Your task to perform on an android device: open wifi settings Image 0: 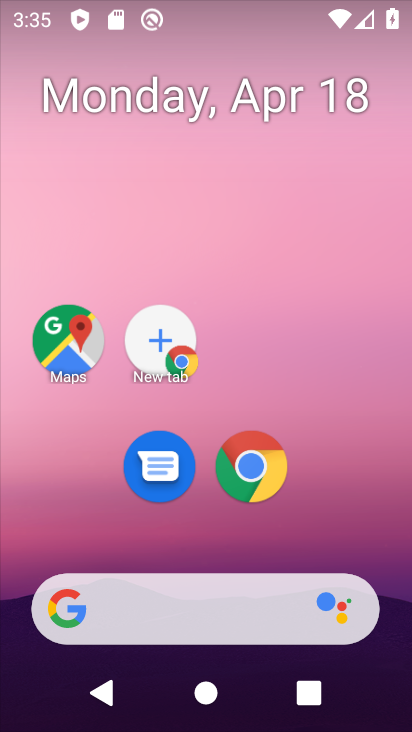
Step 0: drag from (317, 519) to (282, 6)
Your task to perform on an android device: open wifi settings Image 1: 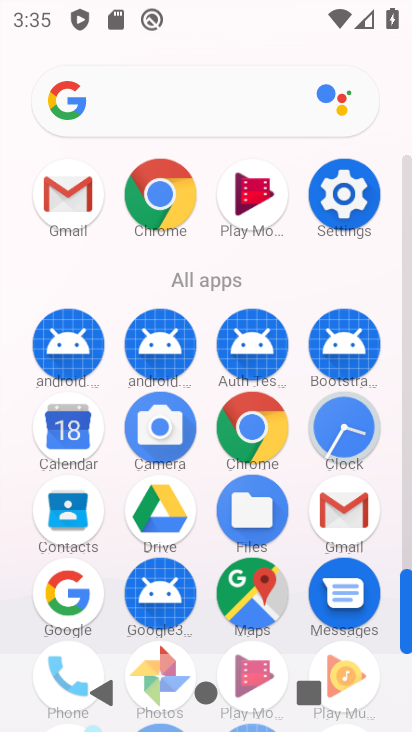
Step 1: click (347, 191)
Your task to perform on an android device: open wifi settings Image 2: 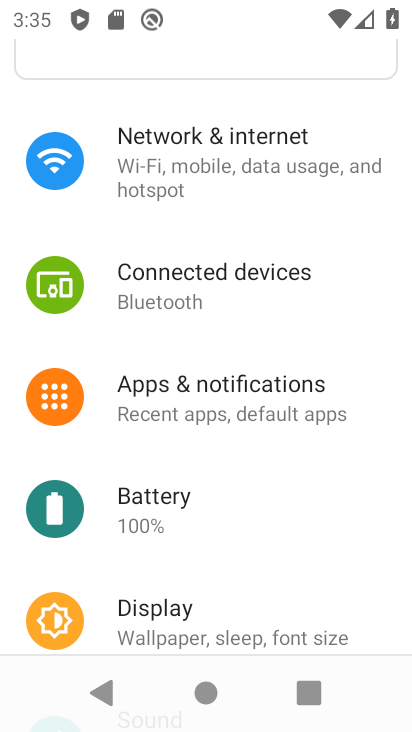
Step 2: drag from (252, 159) to (252, 304)
Your task to perform on an android device: open wifi settings Image 3: 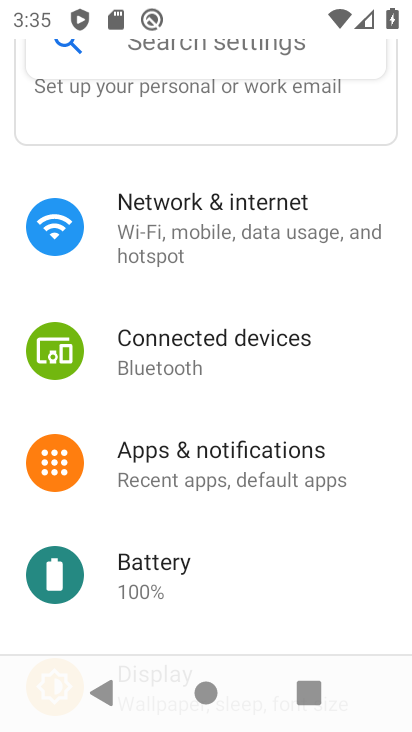
Step 3: click (255, 237)
Your task to perform on an android device: open wifi settings Image 4: 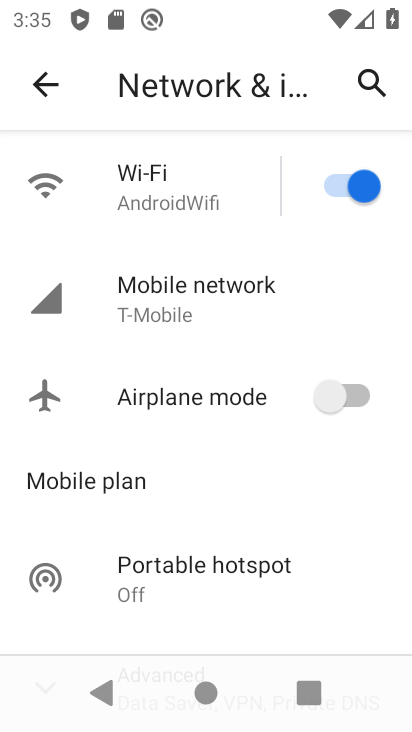
Step 4: click (125, 182)
Your task to perform on an android device: open wifi settings Image 5: 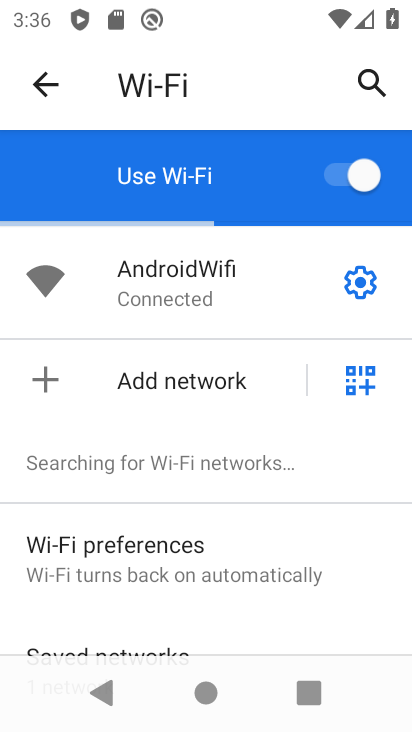
Step 5: task complete